Your task to perform on an android device: Open eBay Image 0: 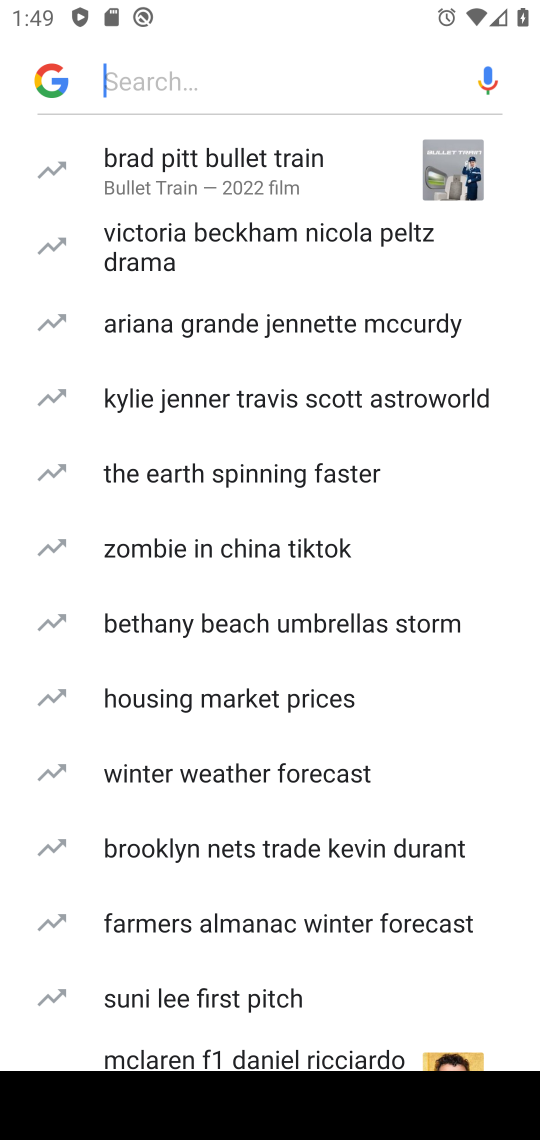
Step 0: type "eBay"
Your task to perform on an android device: Open eBay Image 1: 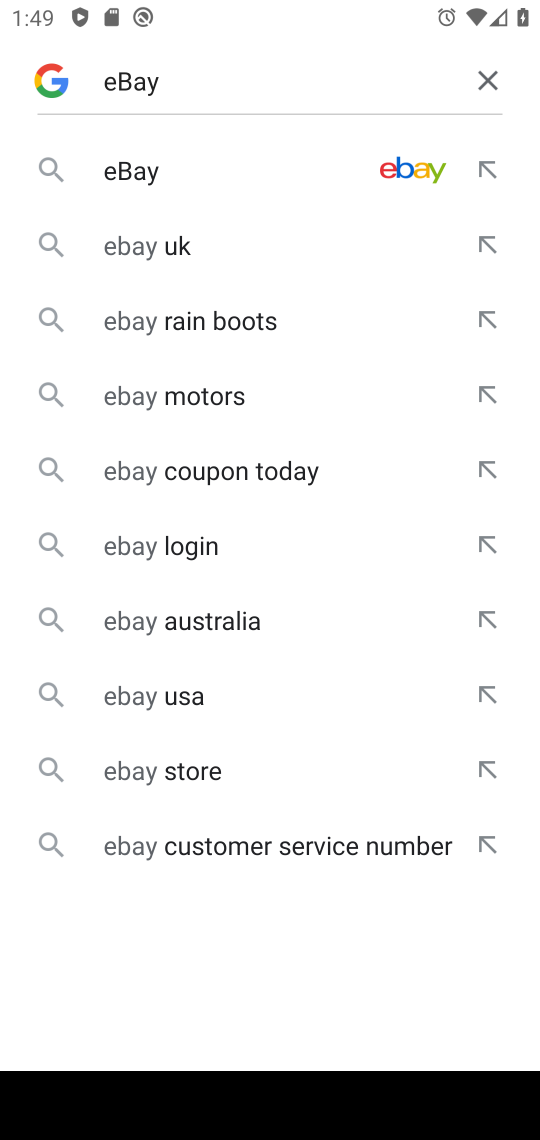
Step 1: click (146, 160)
Your task to perform on an android device: Open eBay Image 2: 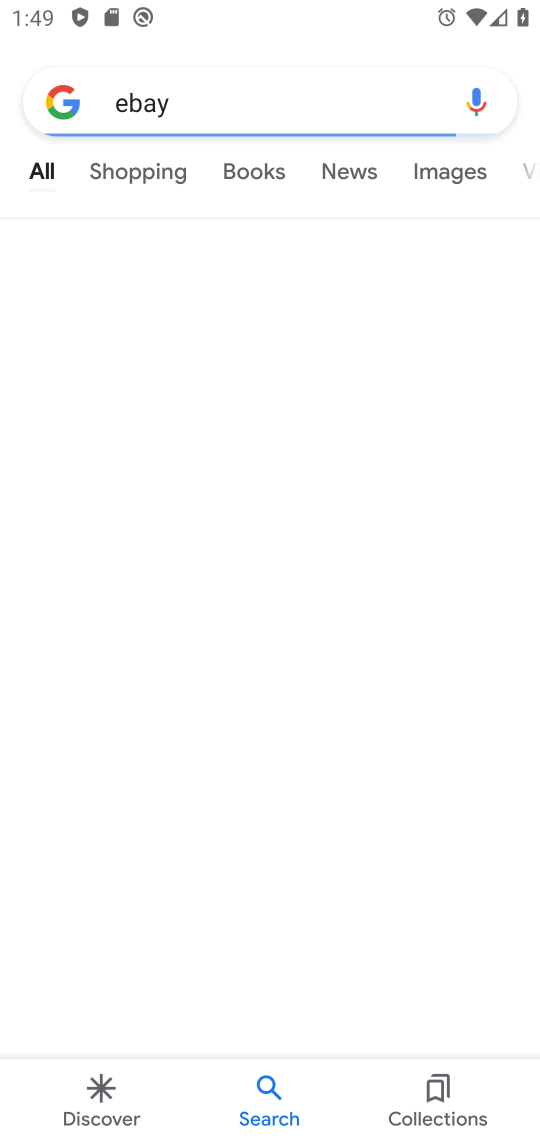
Step 2: task complete